Your task to perform on an android device: What's the news in Nepal? Image 0: 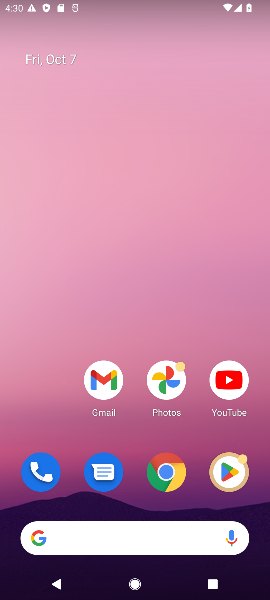
Step 0: click (166, 471)
Your task to perform on an android device: What's the news in Nepal? Image 1: 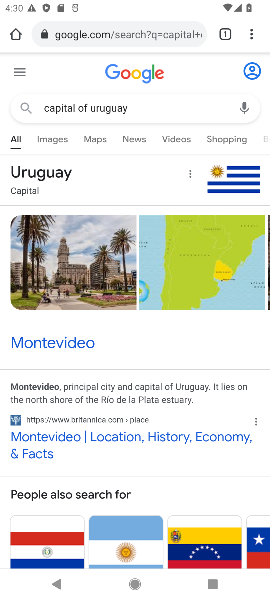
Step 1: click (125, 37)
Your task to perform on an android device: What's the news in Nepal? Image 2: 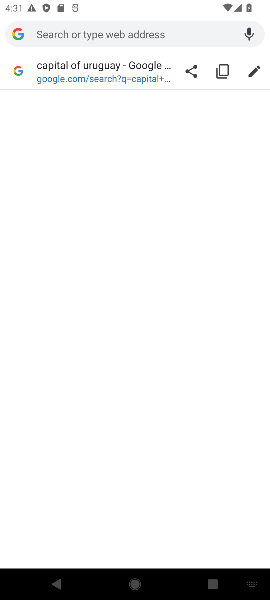
Step 2: type "nepal news"
Your task to perform on an android device: What's the news in Nepal? Image 3: 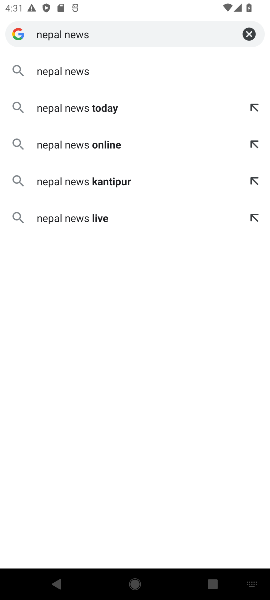
Step 3: click (95, 74)
Your task to perform on an android device: What's the news in Nepal? Image 4: 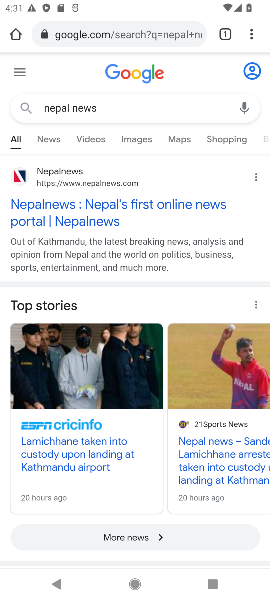
Step 4: click (45, 138)
Your task to perform on an android device: What's the news in Nepal? Image 5: 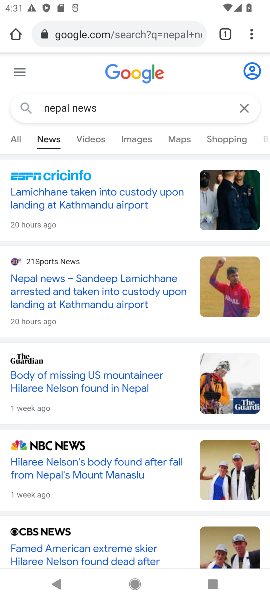
Step 5: task complete